Your task to perform on an android device: toggle javascript in the chrome app Image 0: 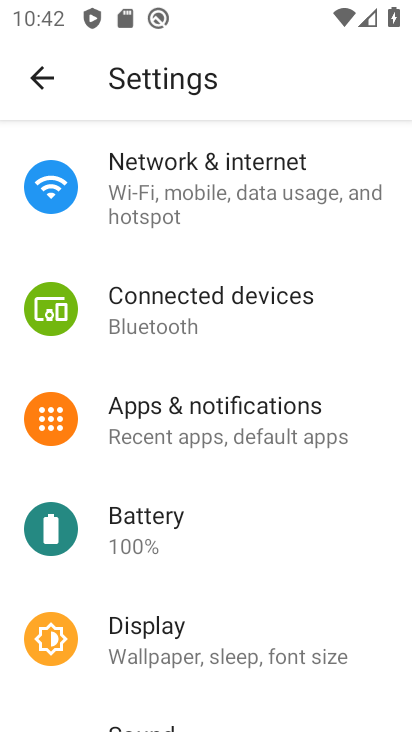
Step 0: press home button
Your task to perform on an android device: toggle javascript in the chrome app Image 1: 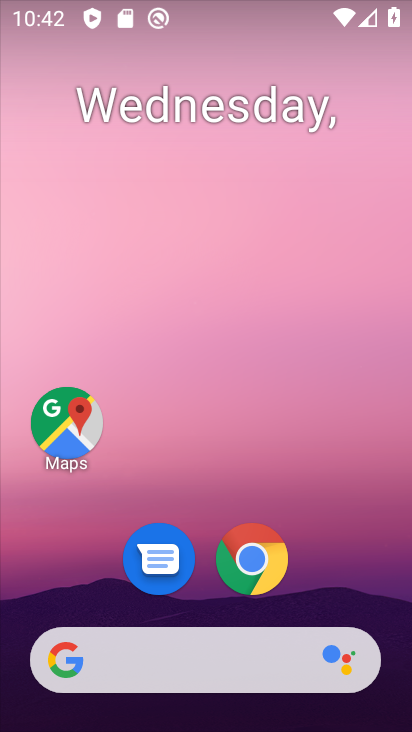
Step 1: click (245, 562)
Your task to perform on an android device: toggle javascript in the chrome app Image 2: 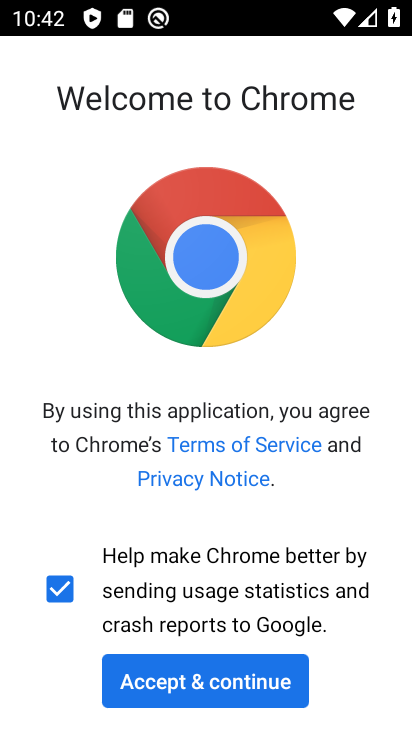
Step 2: click (214, 673)
Your task to perform on an android device: toggle javascript in the chrome app Image 3: 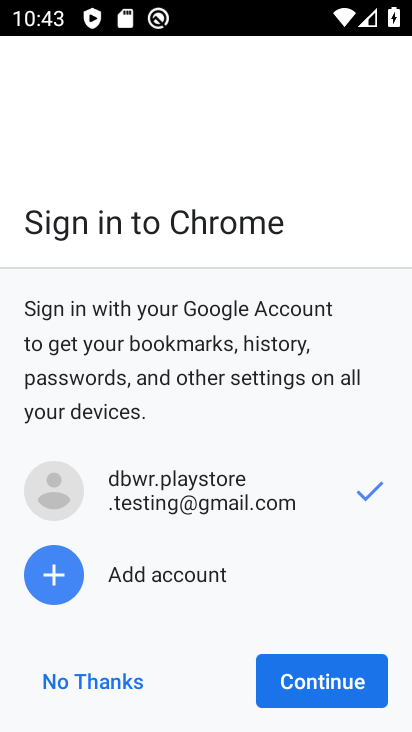
Step 3: click (356, 678)
Your task to perform on an android device: toggle javascript in the chrome app Image 4: 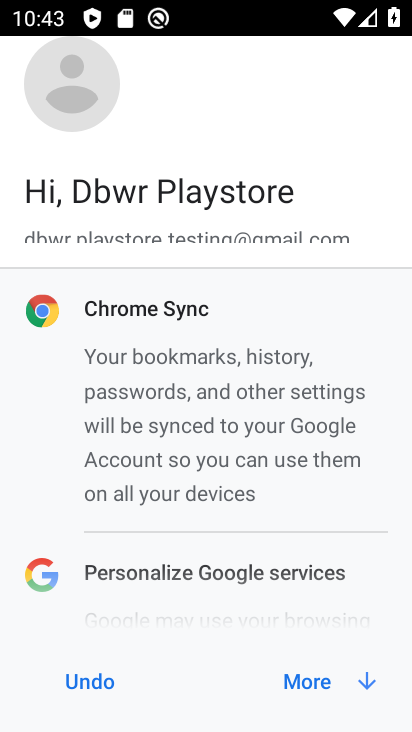
Step 4: click (296, 685)
Your task to perform on an android device: toggle javascript in the chrome app Image 5: 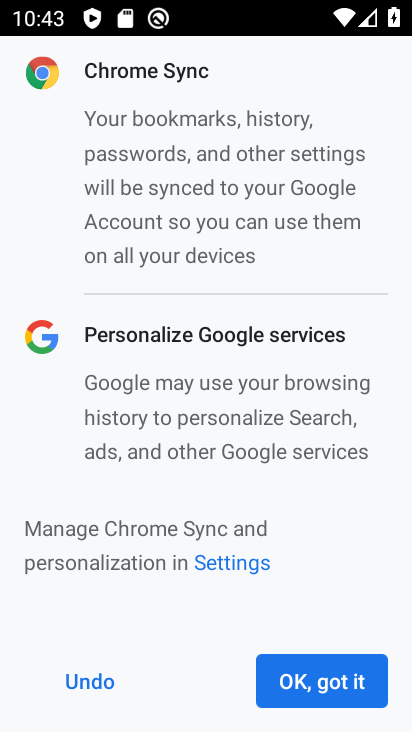
Step 5: click (296, 685)
Your task to perform on an android device: toggle javascript in the chrome app Image 6: 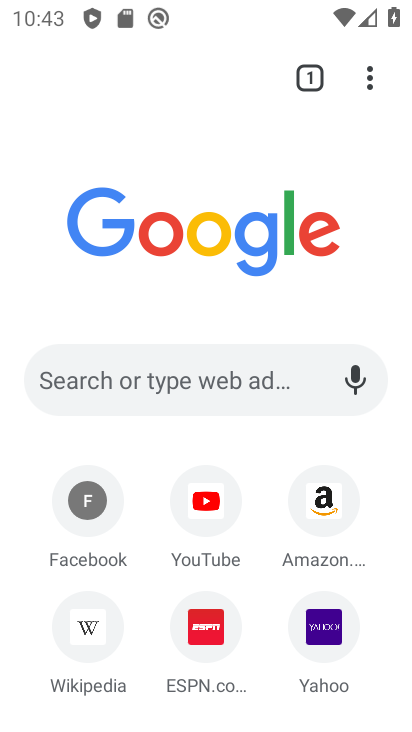
Step 6: click (370, 77)
Your task to perform on an android device: toggle javascript in the chrome app Image 7: 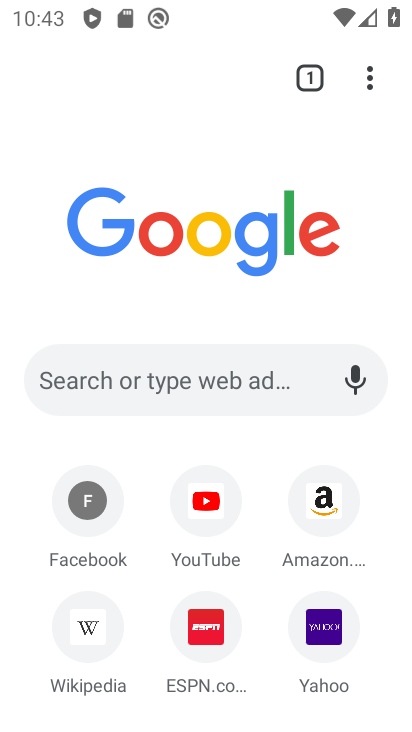
Step 7: click (368, 74)
Your task to perform on an android device: toggle javascript in the chrome app Image 8: 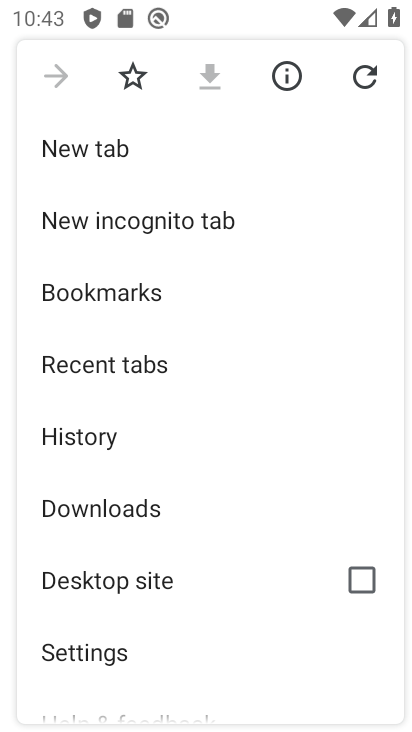
Step 8: click (85, 636)
Your task to perform on an android device: toggle javascript in the chrome app Image 9: 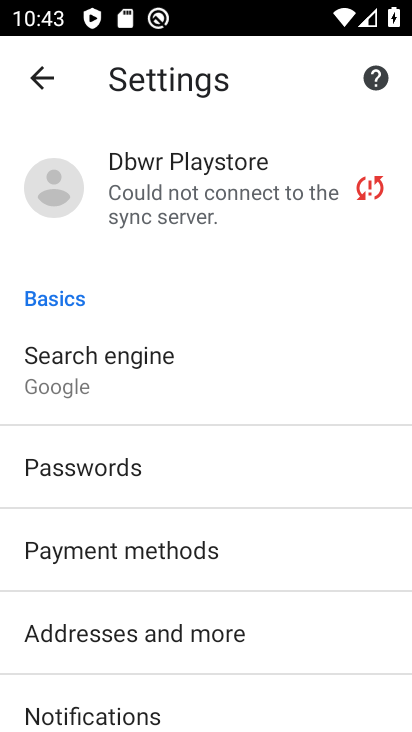
Step 9: drag from (197, 653) to (300, 222)
Your task to perform on an android device: toggle javascript in the chrome app Image 10: 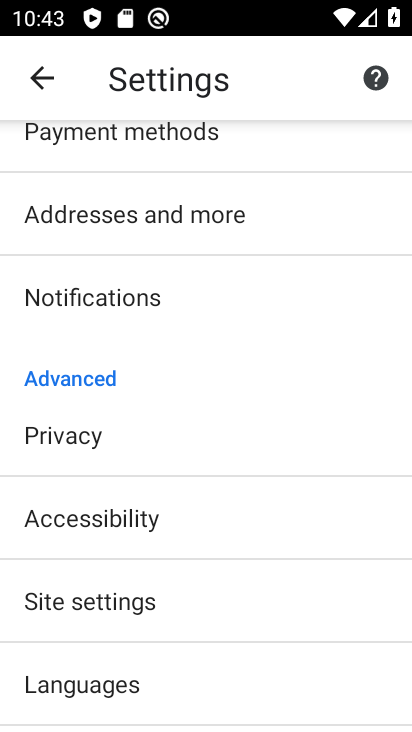
Step 10: click (98, 596)
Your task to perform on an android device: toggle javascript in the chrome app Image 11: 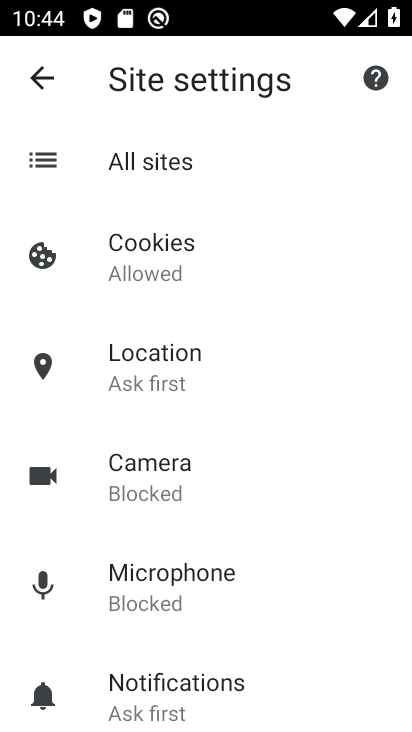
Step 11: drag from (171, 590) to (236, 234)
Your task to perform on an android device: toggle javascript in the chrome app Image 12: 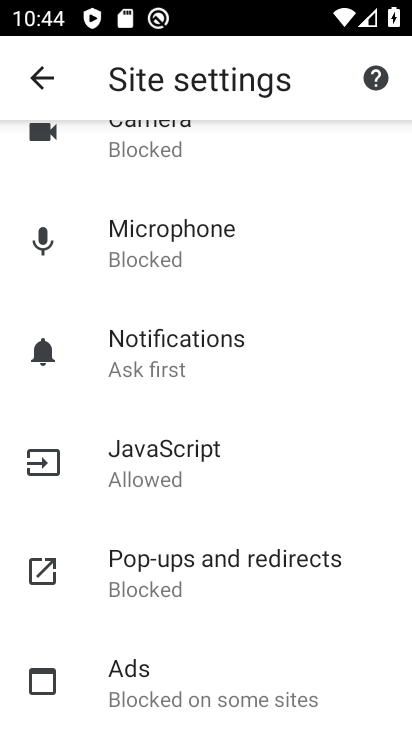
Step 12: click (174, 457)
Your task to perform on an android device: toggle javascript in the chrome app Image 13: 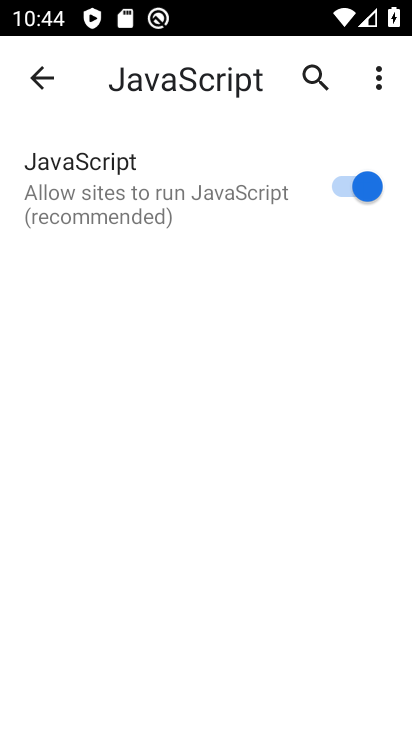
Step 13: click (347, 188)
Your task to perform on an android device: toggle javascript in the chrome app Image 14: 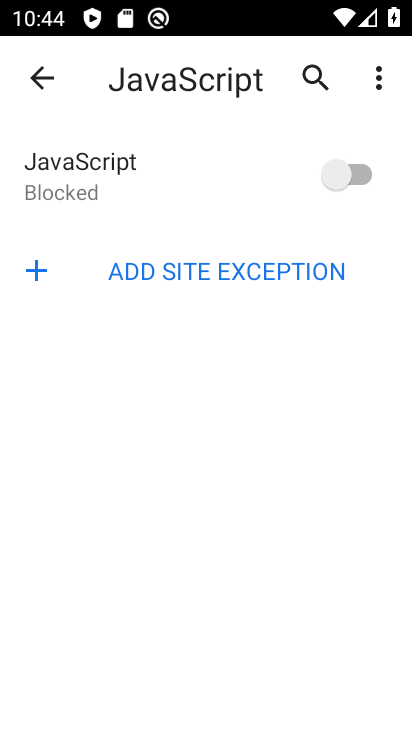
Step 14: task complete